Your task to perform on an android device: change the clock display to show seconds Image 0: 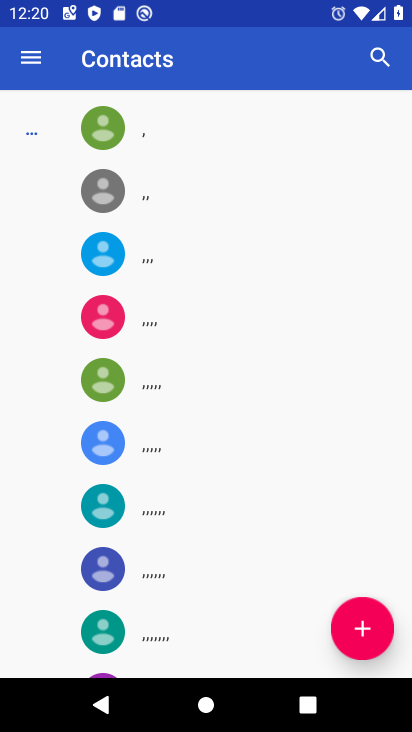
Step 0: press home button
Your task to perform on an android device: change the clock display to show seconds Image 1: 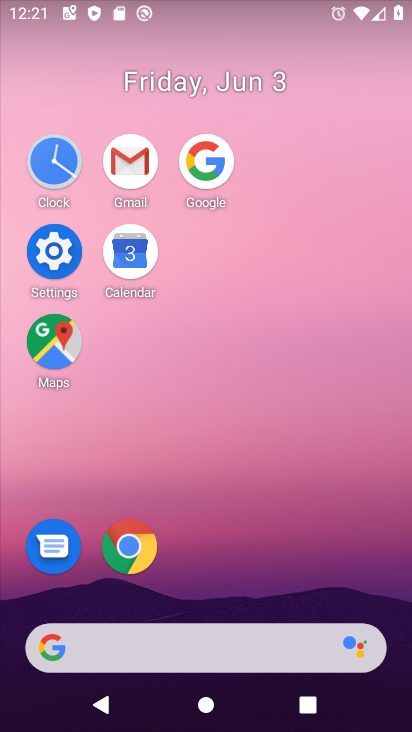
Step 1: click (47, 169)
Your task to perform on an android device: change the clock display to show seconds Image 2: 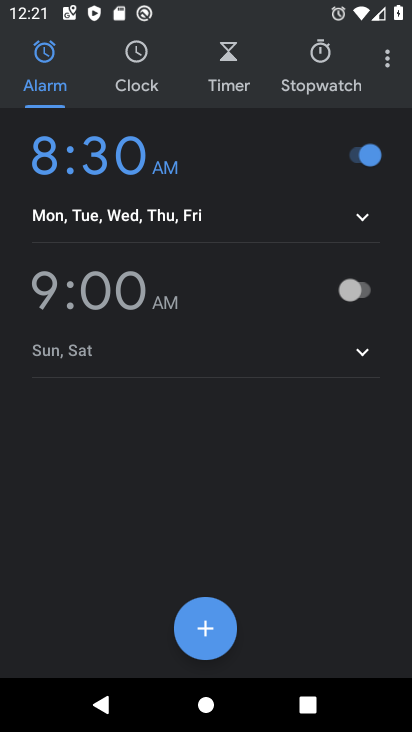
Step 2: click (387, 55)
Your task to perform on an android device: change the clock display to show seconds Image 3: 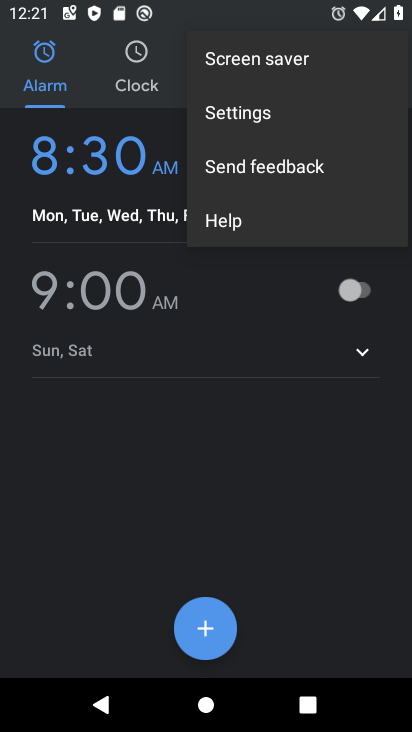
Step 3: click (287, 102)
Your task to perform on an android device: change the clock display to show seconds Image 4: 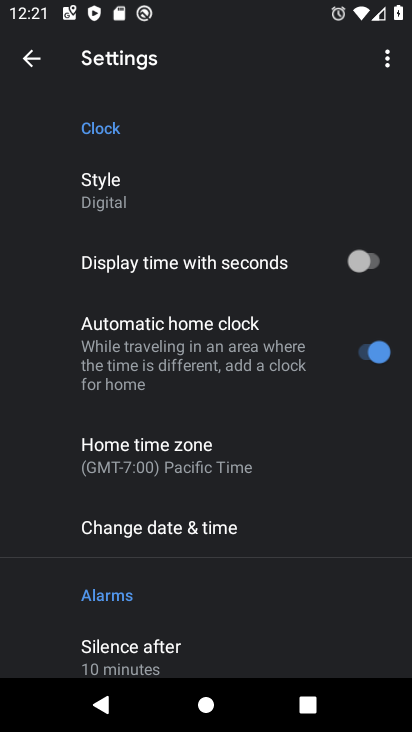
Step 4: click (310, 270)
Your task to perform on an android device: change the clock display to show seconds Image 5: 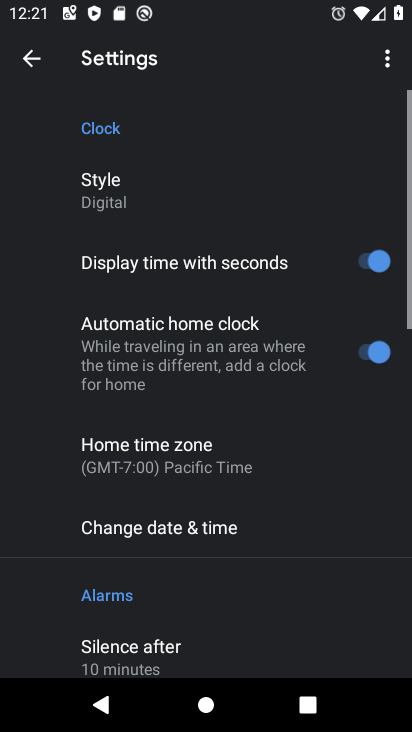
Step 5: task complete